Your task to perform on an android device: check battery use Image 0: 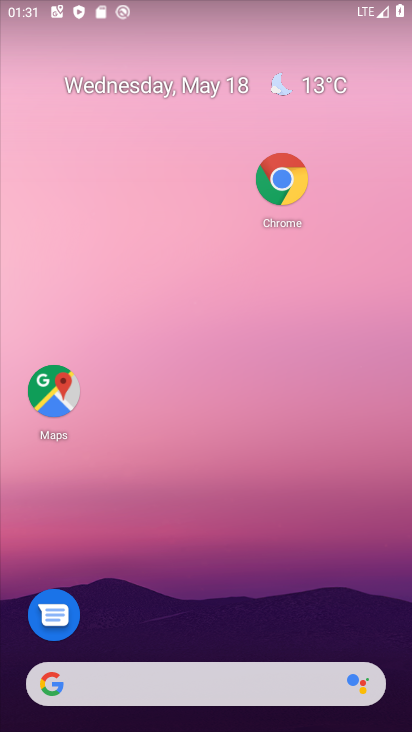
Step 0: press home button
Your task to perform on an android device: check battery use Image 1: 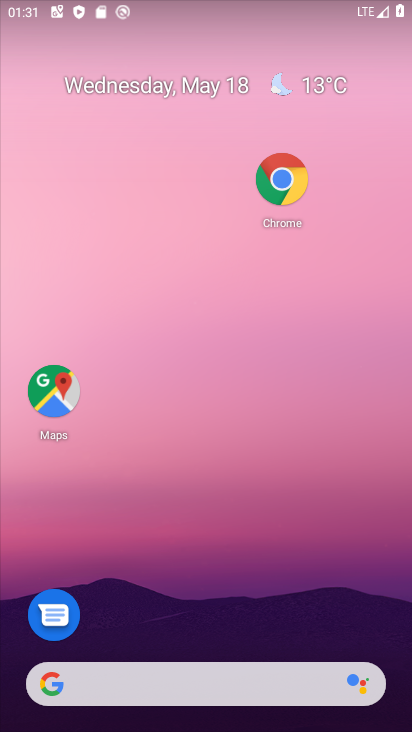
Step 1: drag from (179, 652) to (298, 171)
Your task to perform on an android device: check battery use Image 2: 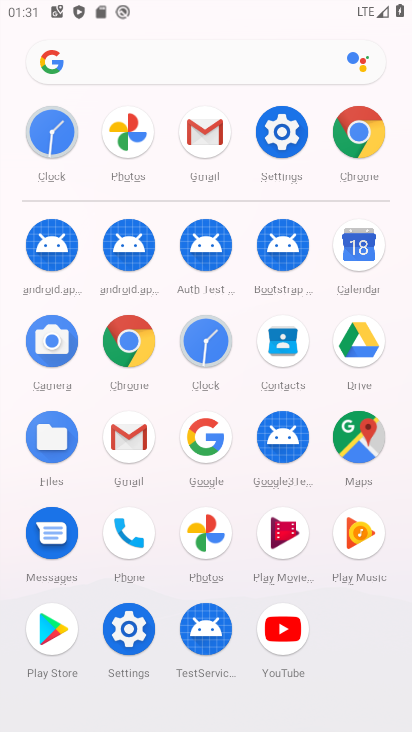
Step 2: click (276, 142)
Your task to perform on an android device: check battery use Image 3: 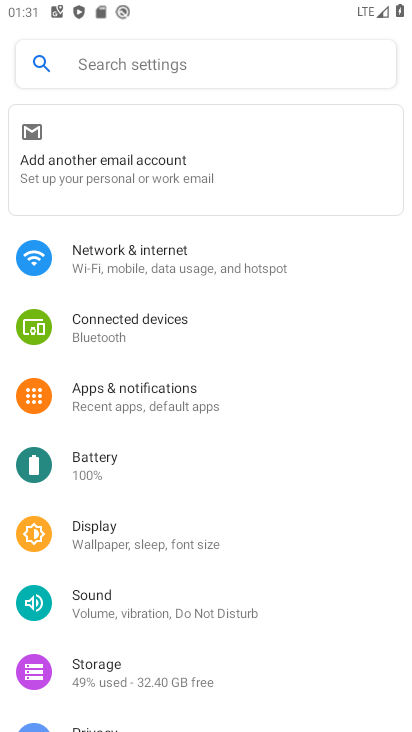
Step 3: drag from (265, 593) to (320, 309)
Your task to perform on an android device: check battery use Image 4: 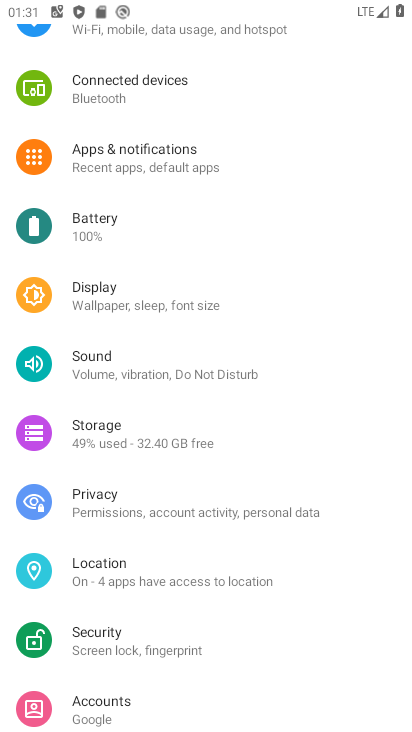
Step 4: click (108, 229)
Your task to perform on an android device: check battery use Image 5: 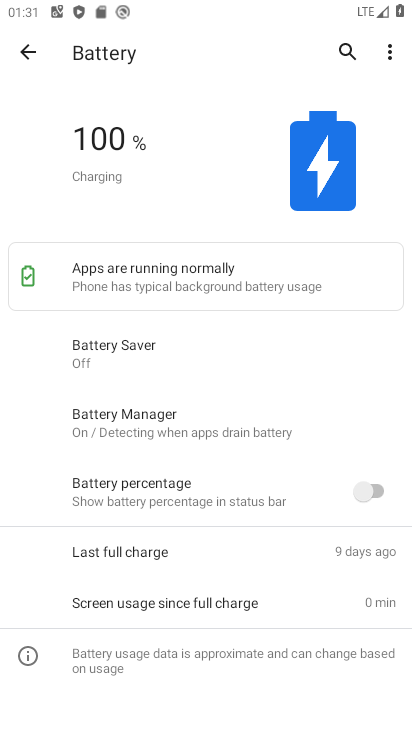
Step 5: click (390, 47)
Your task to perform on an android device: check battery use Image 6: 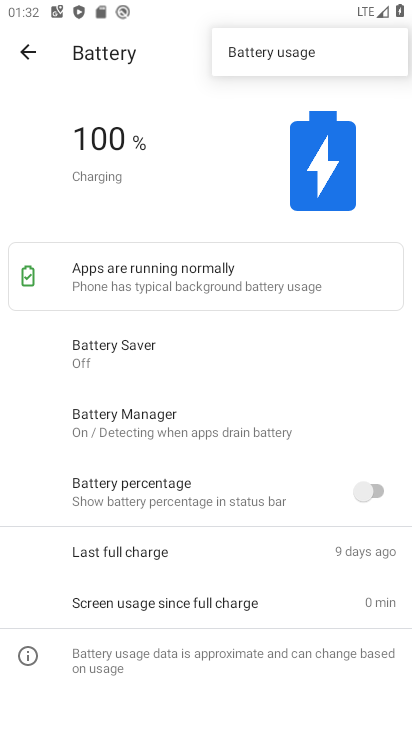
Step 6: click (296, 57)
Your task to perform on an android device: check battery use Image 7: 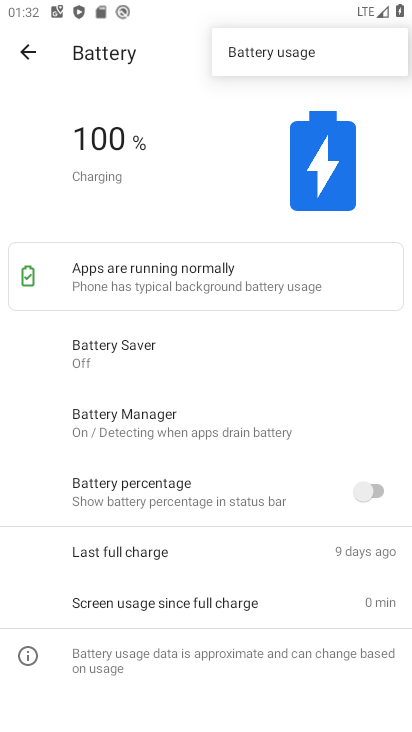
Step 7: click (289, 54)
Your task to perform on an android device: check battery use Image 8: 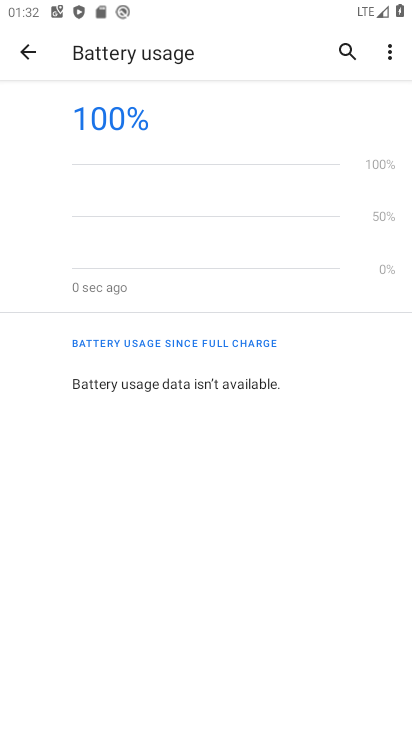
Step 8: task complete